Your task to perform on an android device: turn on data saver in the chrome app Image 0: 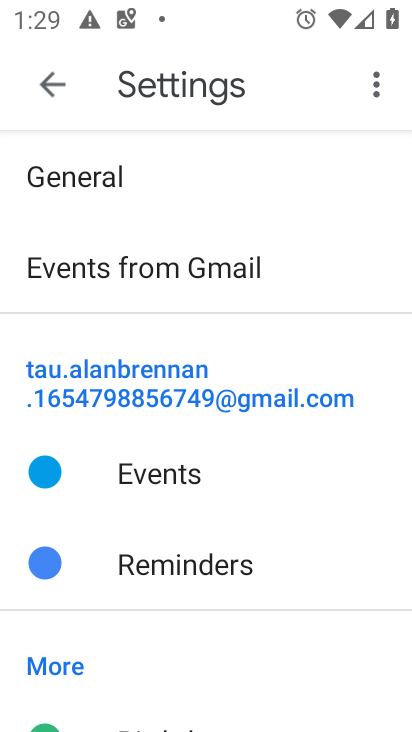
Step 0: press home button
Your task to perform on an android device: turn on data saver in the chrome app Image 1: 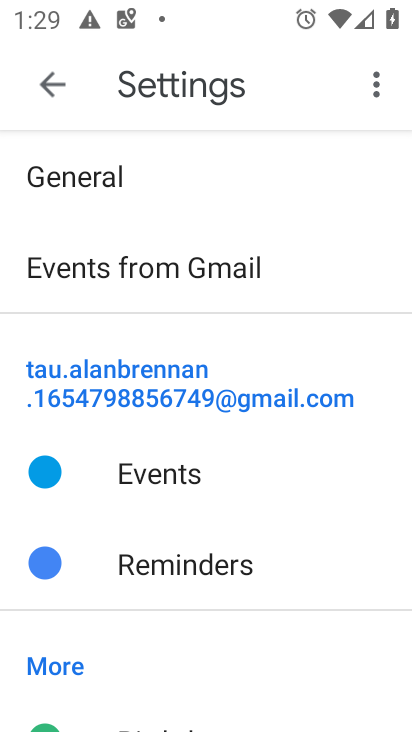
Step 1: press home button
Your task to perform on an android device: turn on data saver in the chrome app Image 2: 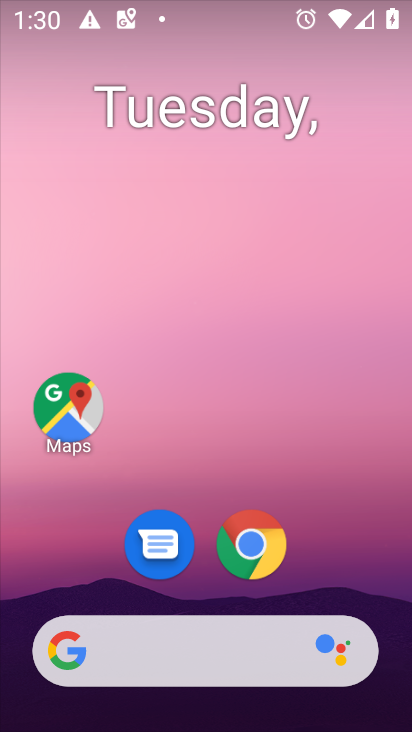
Step 2: drag from (309, 529) to (30, 74)
Your task to perform on an android device: turn on data saver in the chrome app Image 3: 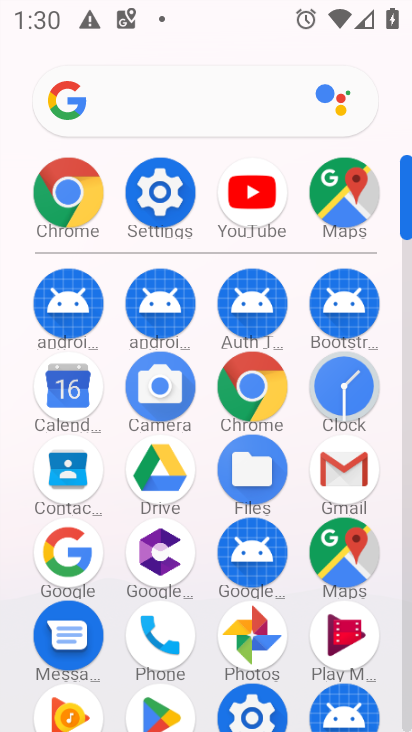
Step 3: click (248, 394)
Your task to perform on an android device: turn on data saver in the chrome app Image 4: 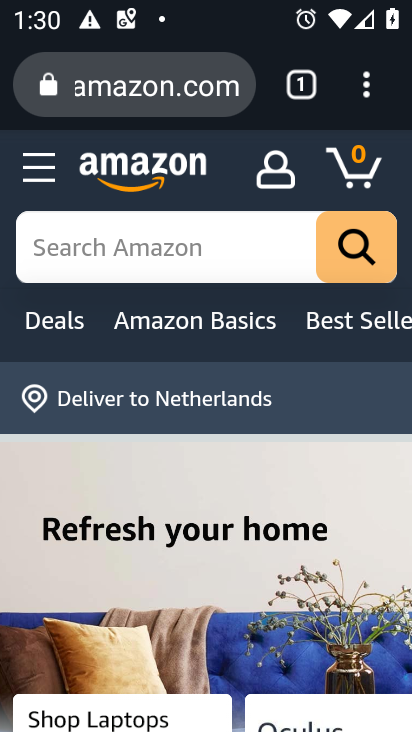
Step 4: drag from (371, 68) to (104, 593)
Your task to perform on an android device: turn on data saver in the chrome app Image 5: 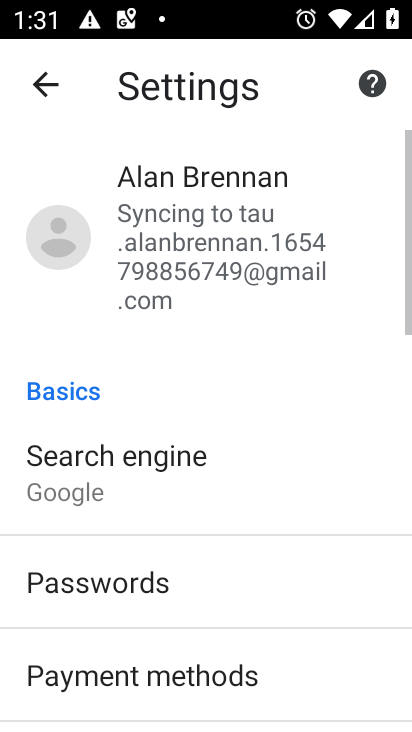
Step 5: drag from (186, 703) to (228, 10)
Your task to perform on an android device: turn on data saver in the chrome app Image 6: 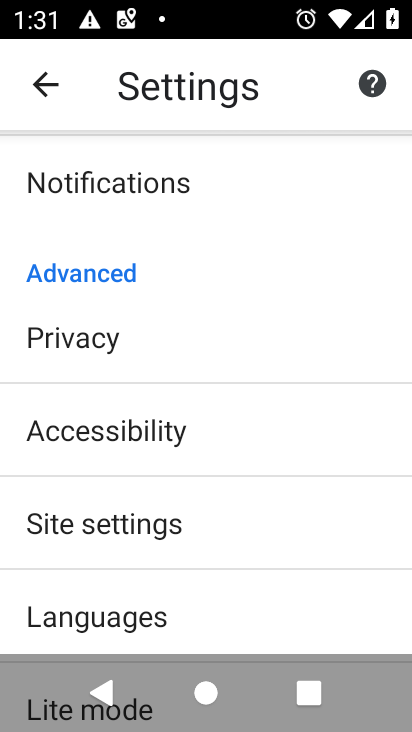
Step 6: drag from (187, 476) to (215, 5)
Your task to perform on an android device: turn on data saver in the chrome app Image 7: 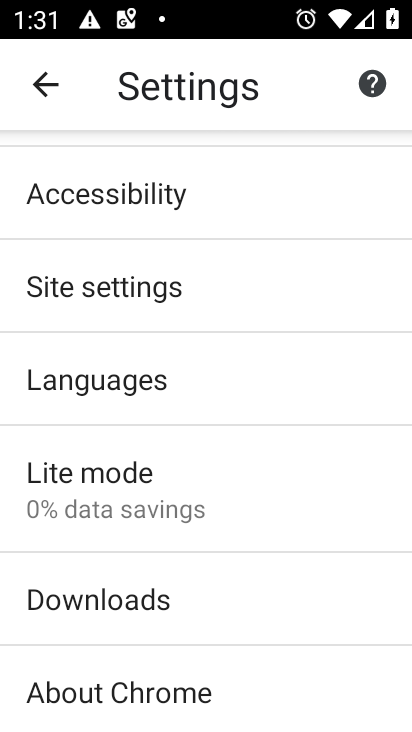
Step 7: click (147, 476)
Your task to perform on an android device: turn on data saver in the chrome app Image 8: 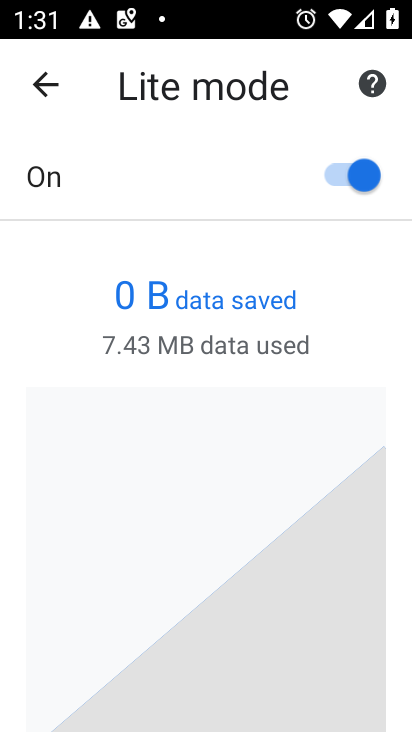
Step 8: task complete